Your task to perform on an android device: find photos in the google photos app Image 0: 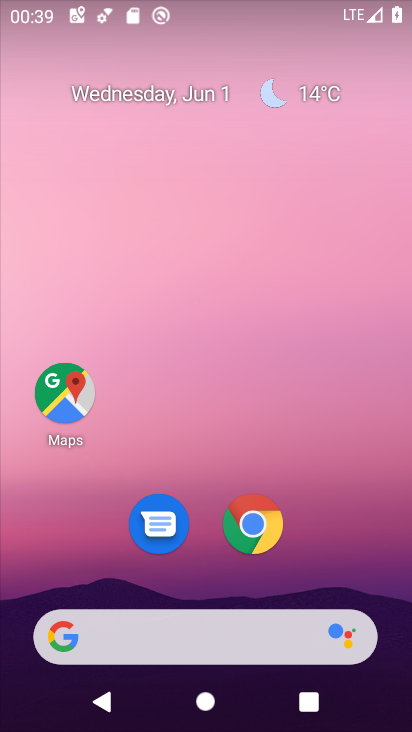
Step 0: drag from (334, 535) to (264, 47)
Your task to perform on an android device: find photos in the google photos app Image 1: 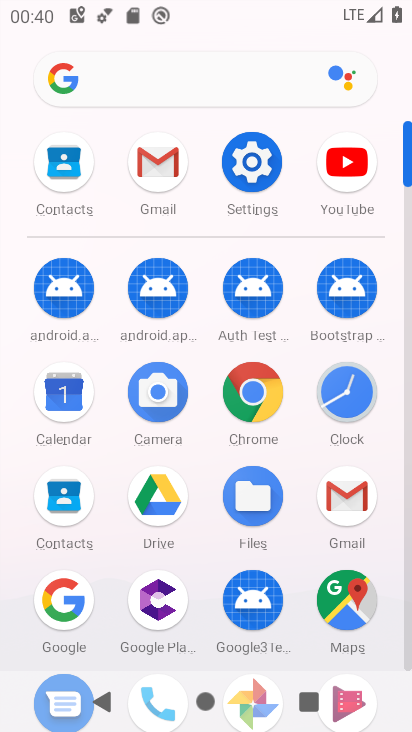
Step 1: drag from (201, 322) to (206, 78)
Your task to perform on an android device: find photos in the google photos app Image 2: 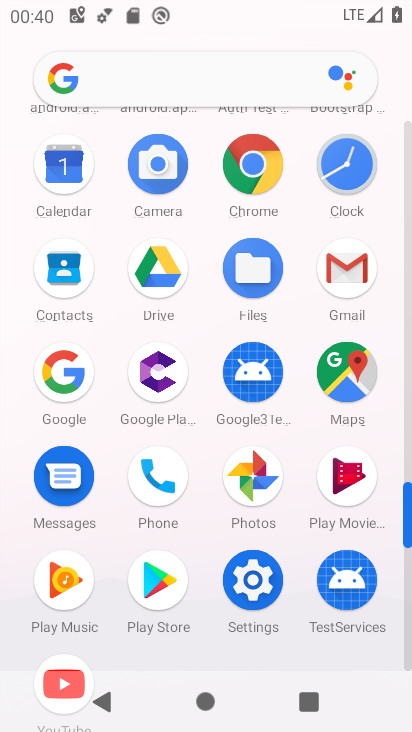
Step 2: click (240, 473)
Your task to perform on an android device: find photos in the google photos app Image 3: 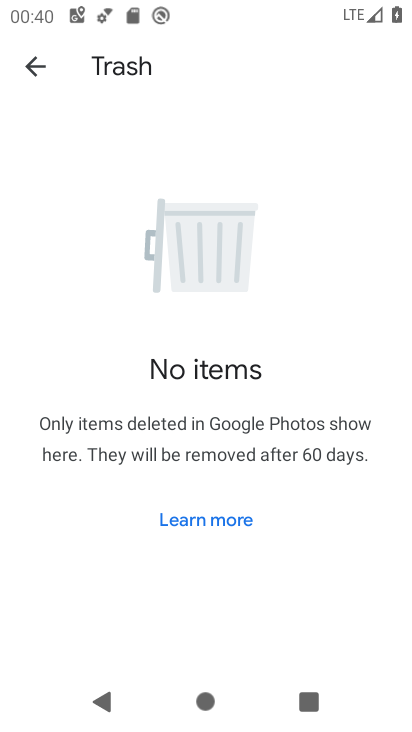
Step 3: click (37, 62)
Your task to perform on an android device: find photos in the google photos app Image 4: 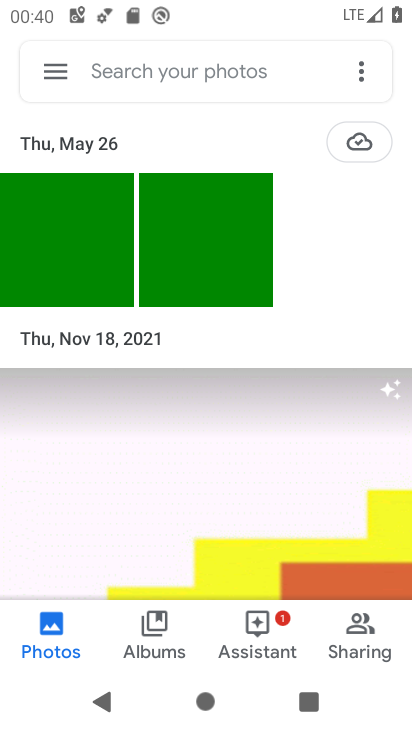
Step 4: click (75, 633)
Your task to perform on an android device: find photos in the google photos app Image 5: 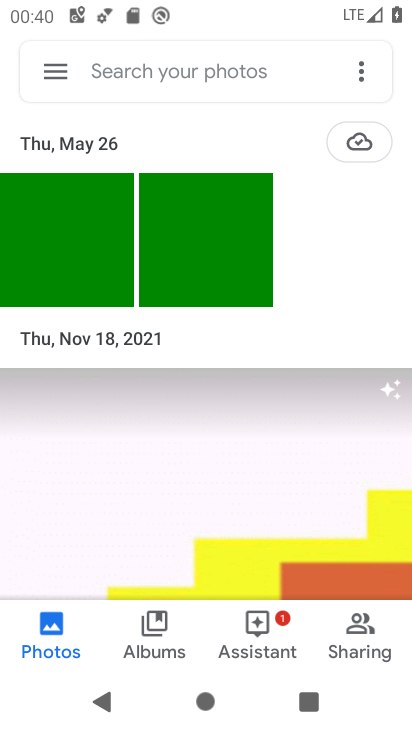
Step 5: task complete